Your task to perform on an android device: uninstall "AliExpress" Image 0: 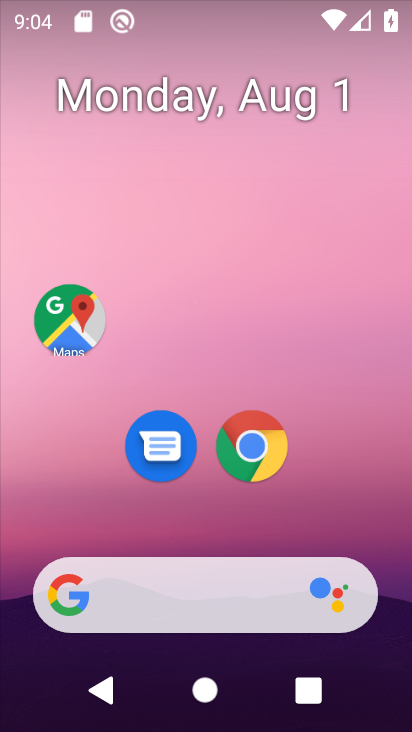
Step 0: drag from (220, 550) to (219, 116)
Your task to perform on an android device: uninstall "AliExpress" Image 1: 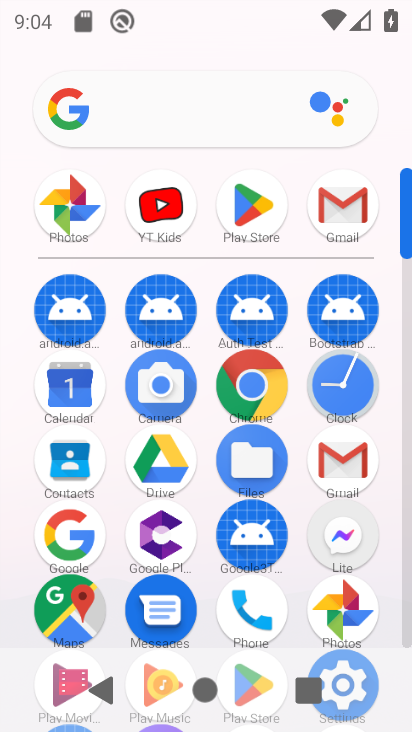
Step 1: click (243, 198)
Your task to perform on an android device: uninstall "AliExpress" Image 2: 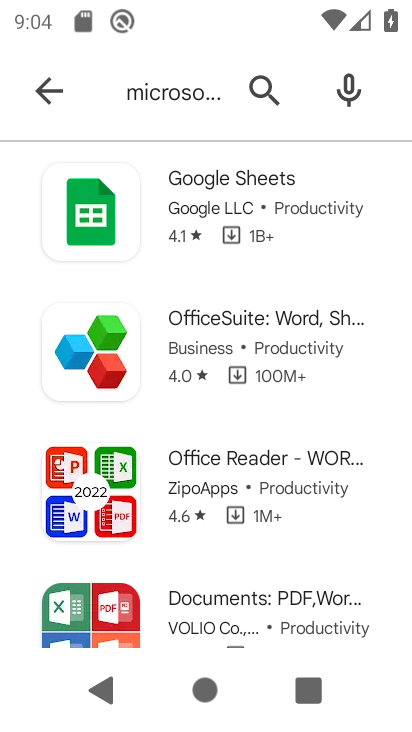
Step 2: click (260, 83)
Your task to perform on an android device: uninstall "AliExpress" Image 3: 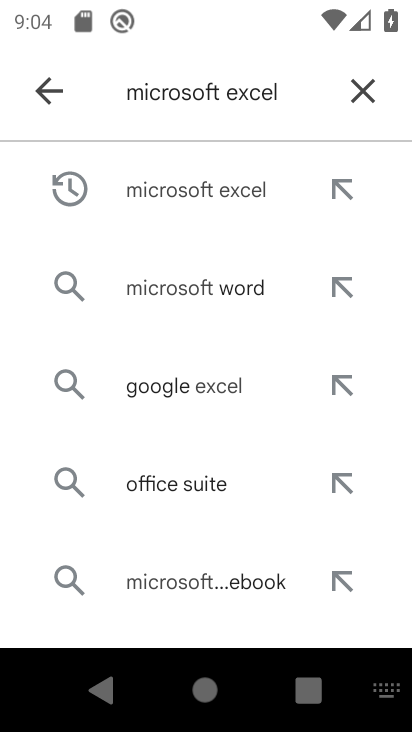
Step 3: click (351, 95)
Your task to perform on an android device: uninstall "AliExpress" Image 4: 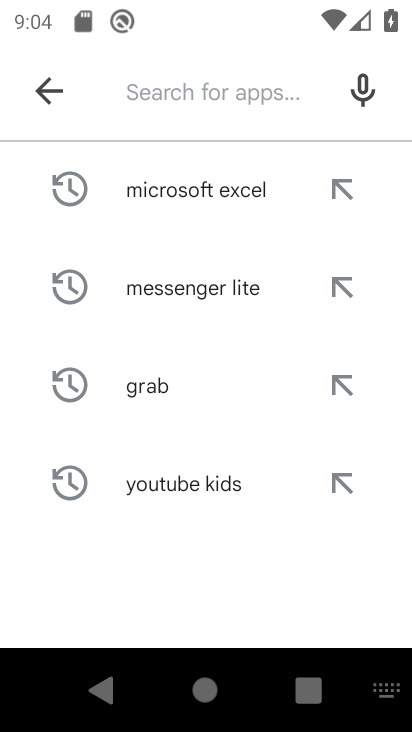
Step 4: type "AliExpress"
Your task to perform on an android device: uninstall "AliExpress" Image 5: 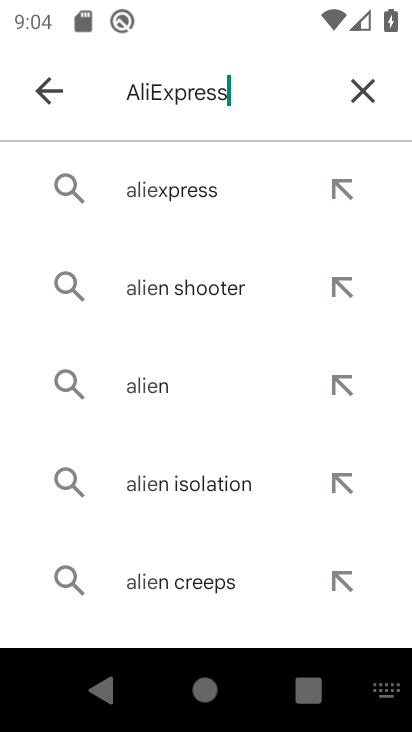
Step 5: type ""
Your task to perform on an android device: uninstall "AliExpress" Image 6: 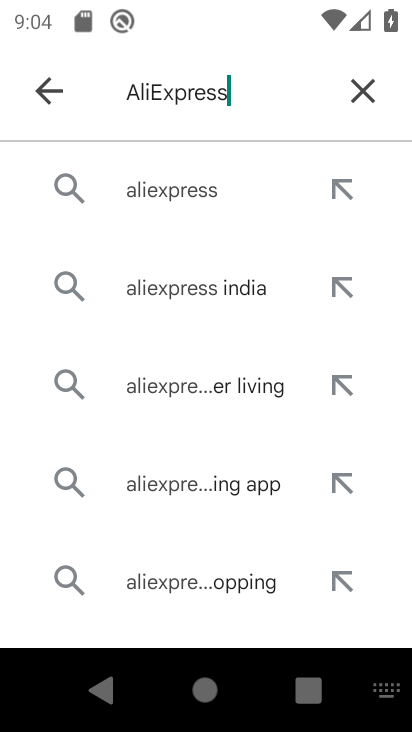
Step 6: click (215, 195)
Your task to perform on an android device: uninstall "AliExpress" Image 7: 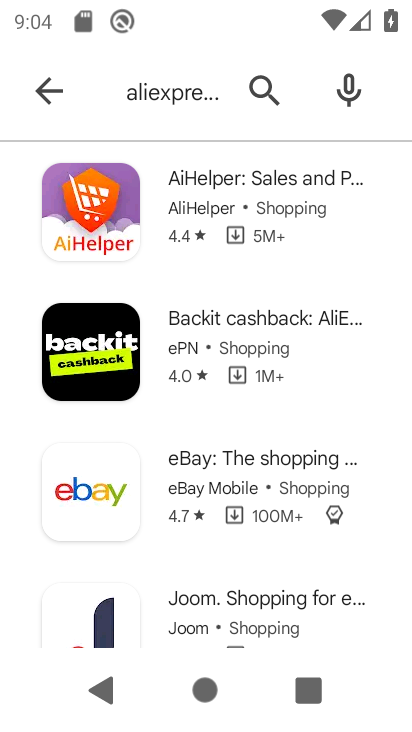
Step 7: click (223, 528)
Your task to perform on an android device: uninstall "AliExpress" Image 8: 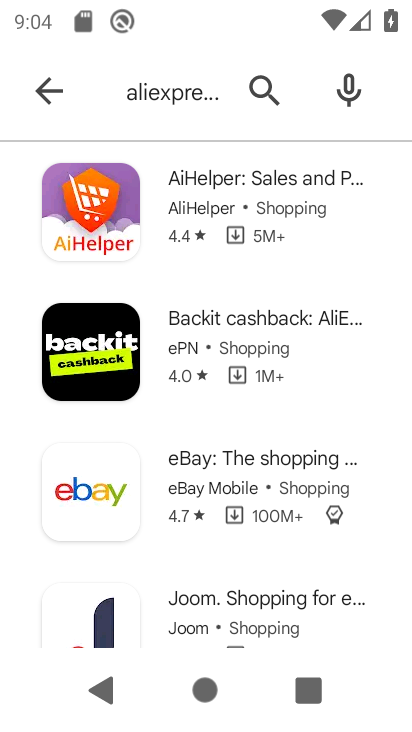
Step 8: task complete